Your task to perform on an android device: Go to battery settings Image 0: 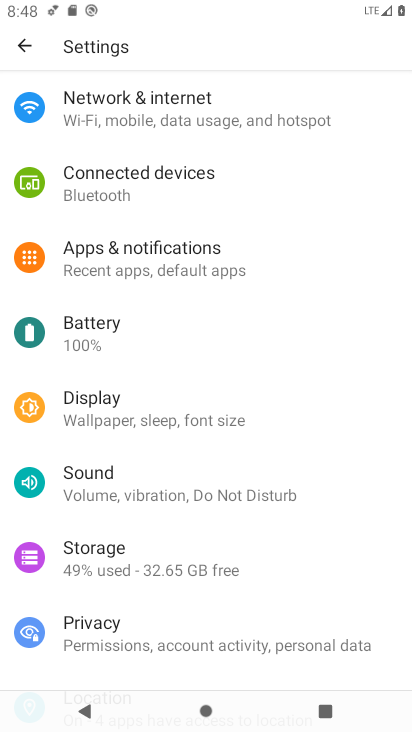
Step 0: click (131, 320)
Your task to perform on an android device: Go to battery settings Image 1: 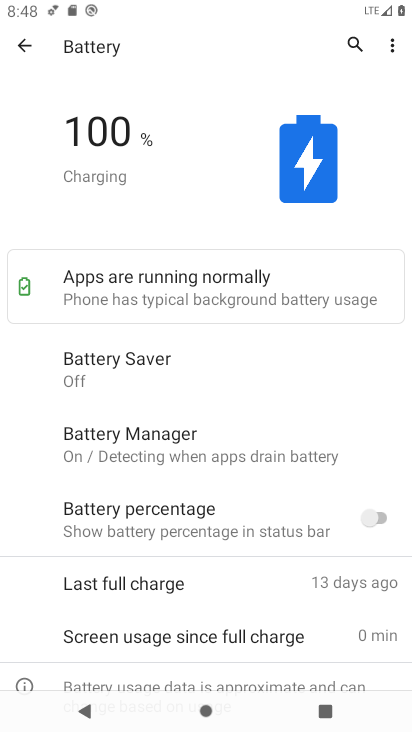
Step 1: task complete